Your task to perform on an android device: turn on bluetooth scan Image 0: 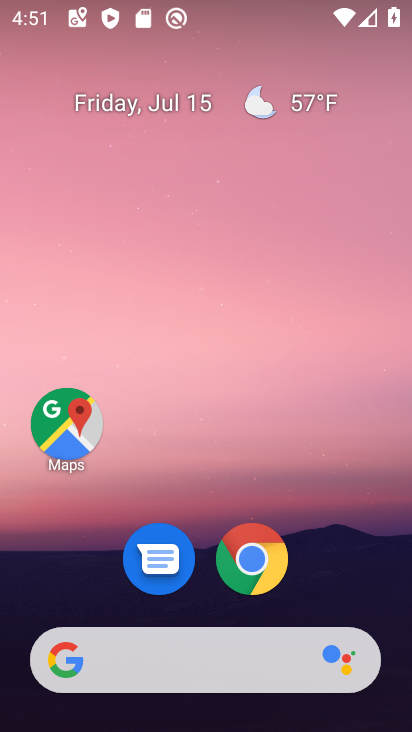
Step 0: drag from (91, 590) to (185, 6)
Your task to perform on an android device: turn on bluetooth scan Image 1: 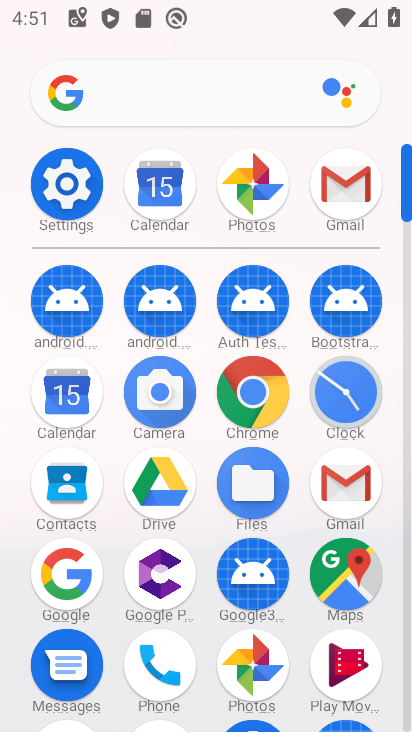
Step 1: click (80, 166)
Your task to perform on an android device: turn on bluetooth scan Image 2: 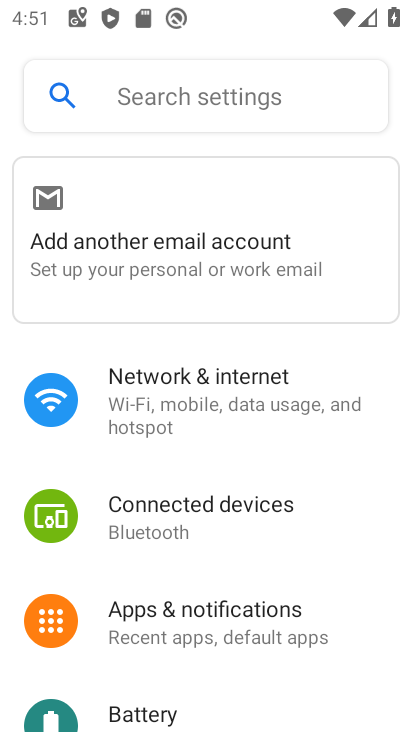
Step 2: click (159, 518)
Your task to perform on an android device: turn on bluetooth scan Image 3: 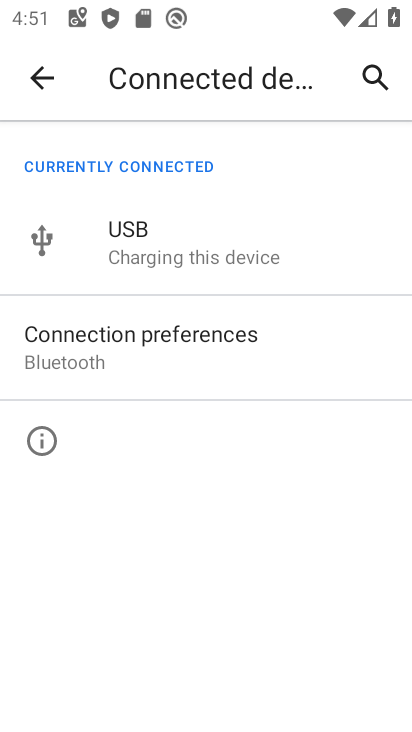
Step 3: click (126, 354)
Your task to perform on an android device: turn on bluetooth scan Image 4: 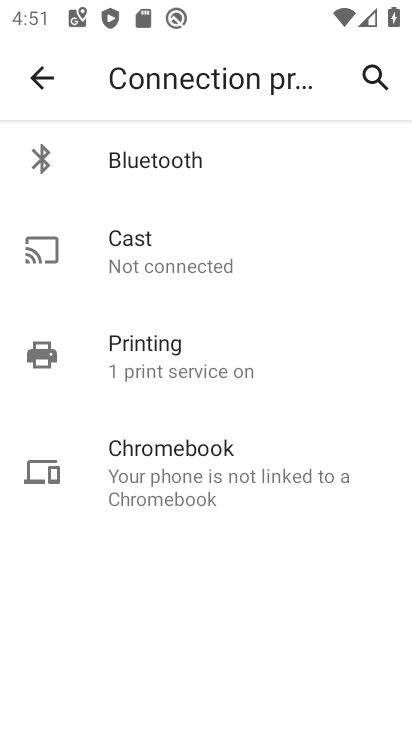
Step 4: click (168, 161)
Your task to perform on an android device: turn on bluetooth scan Image 5: 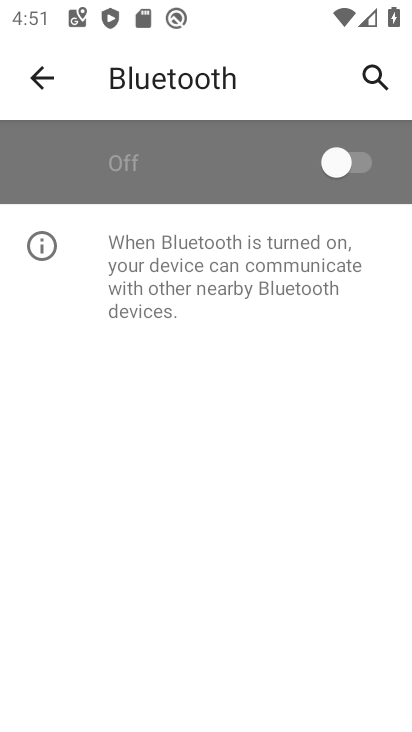
Step 5: task complete